Your task to perform on an android device: Add alienware aurora to the cart on newegg, then select checkout. Image 0: 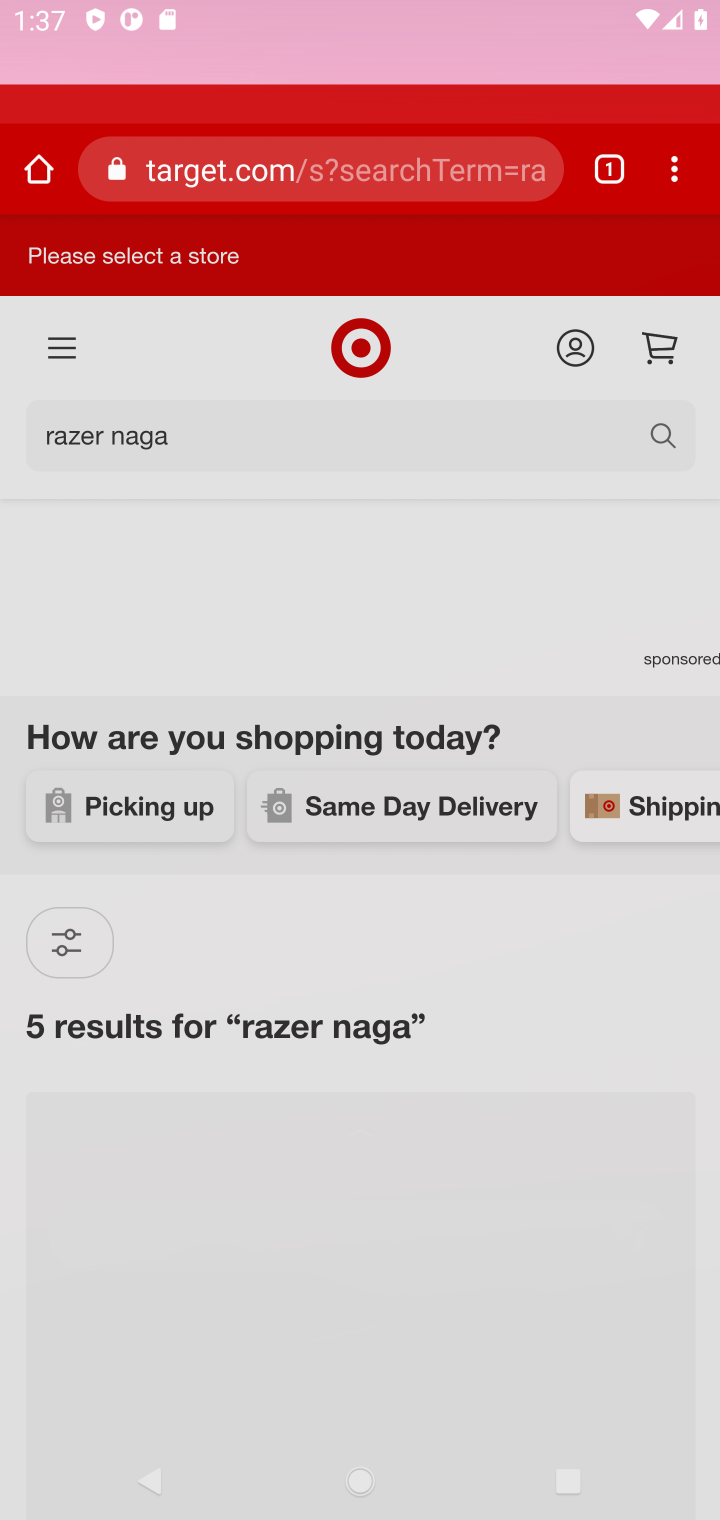
Step 0: click (500, 1149)
Your task to perform on an android device: Add alienware aurora to the cart on newegg, then select checkout. Image 1: 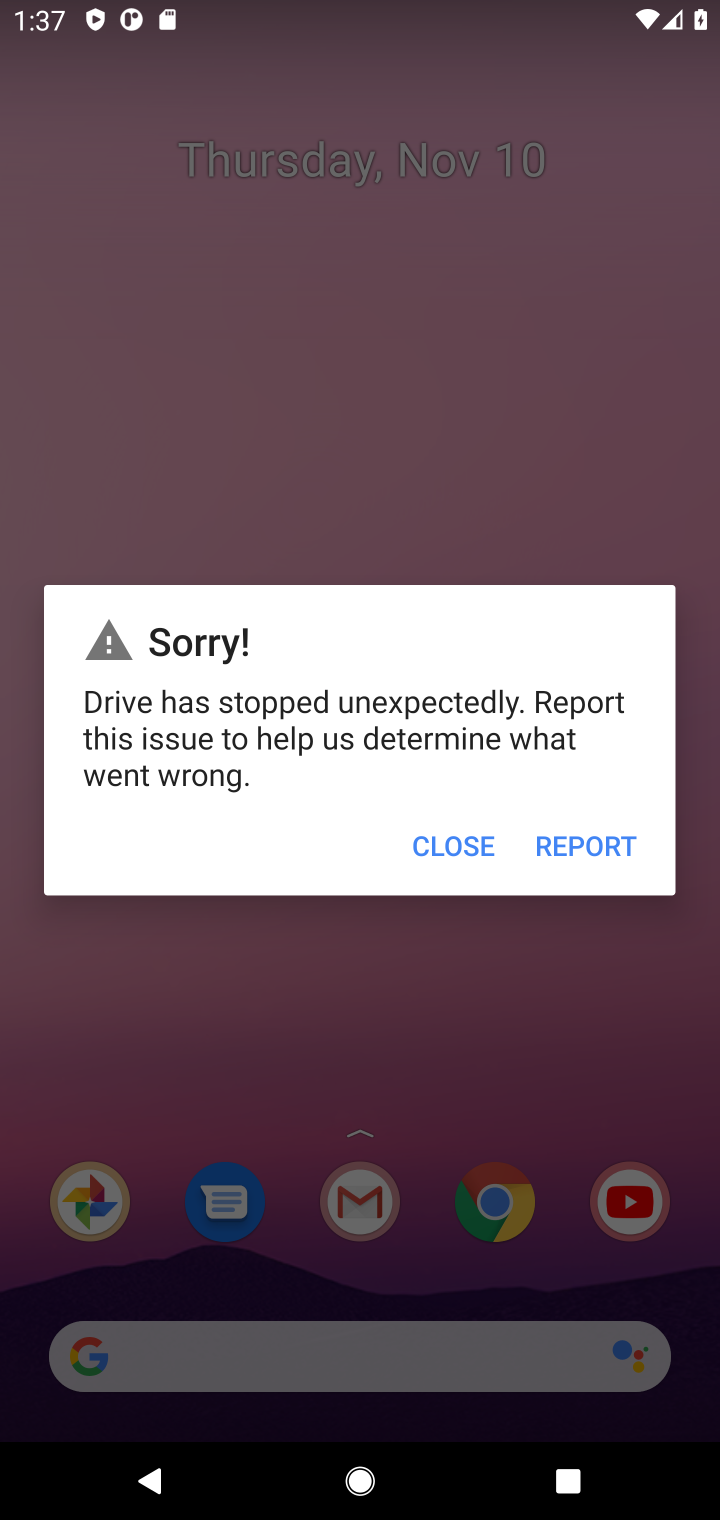
Step 1: press home button
Your task to perform on an android device: Add alienware aurora to the cart on newegg, then select checkout. Image 2: 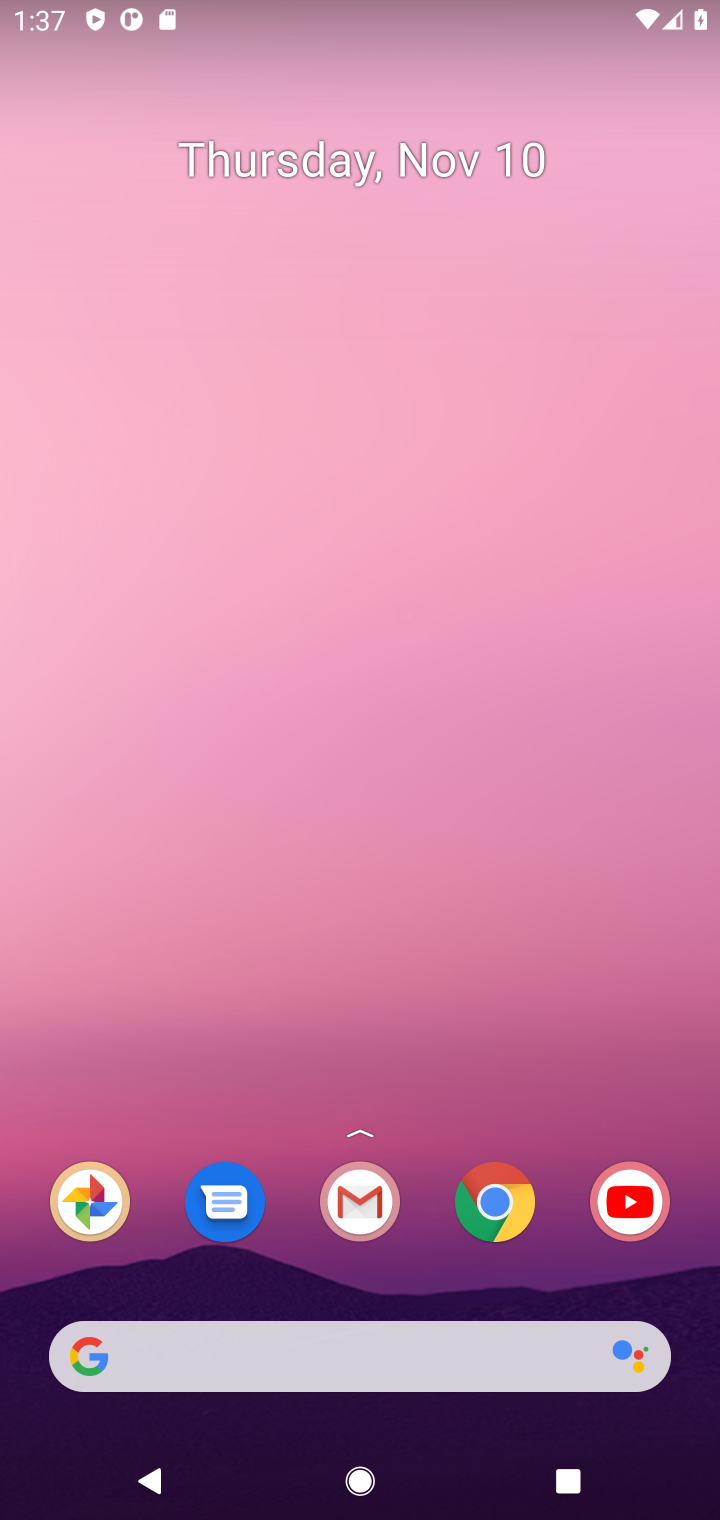
Step 2: click (493, 1211)
Your task to perform on an android device: Add alienware aurora to the cart on newegg, then select checkout. Image 3: 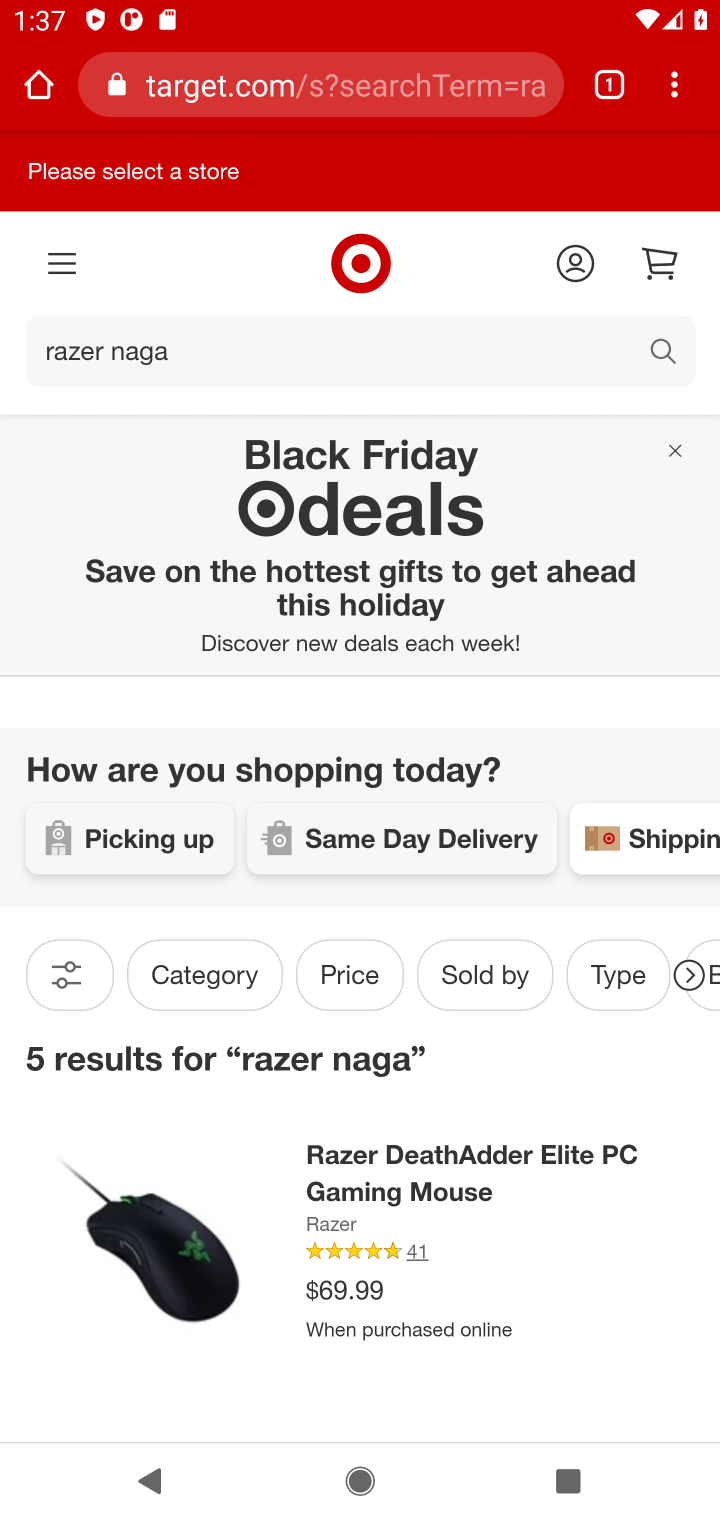
Step 3: click (460, 93)
Your task to perform on an android device: Add alienware aurora to the cart on newegg, then select checkout. Image 4: 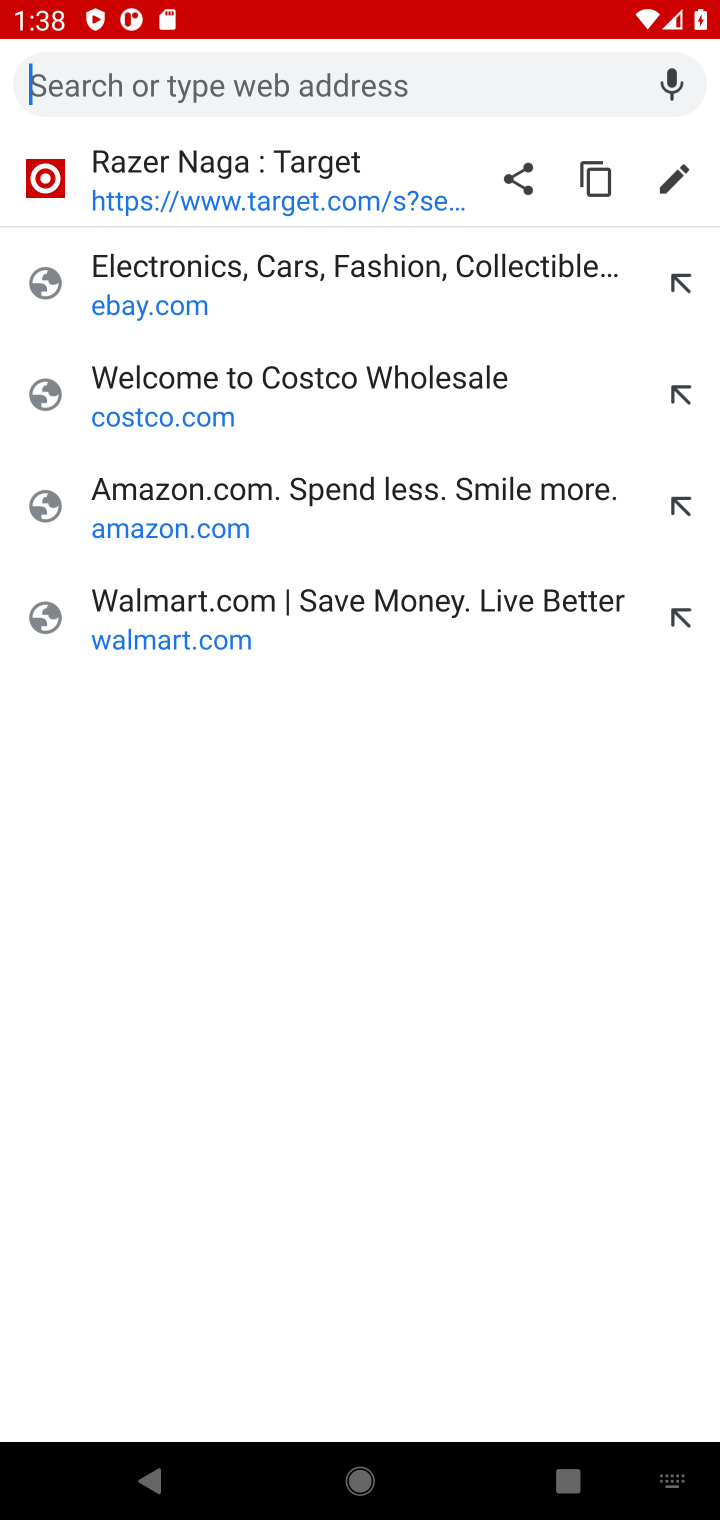
Step 4: type "newegg"
Your task to perform on an android device: Add alienware aurora to the cart on newegg, then select checkout. Image 5: 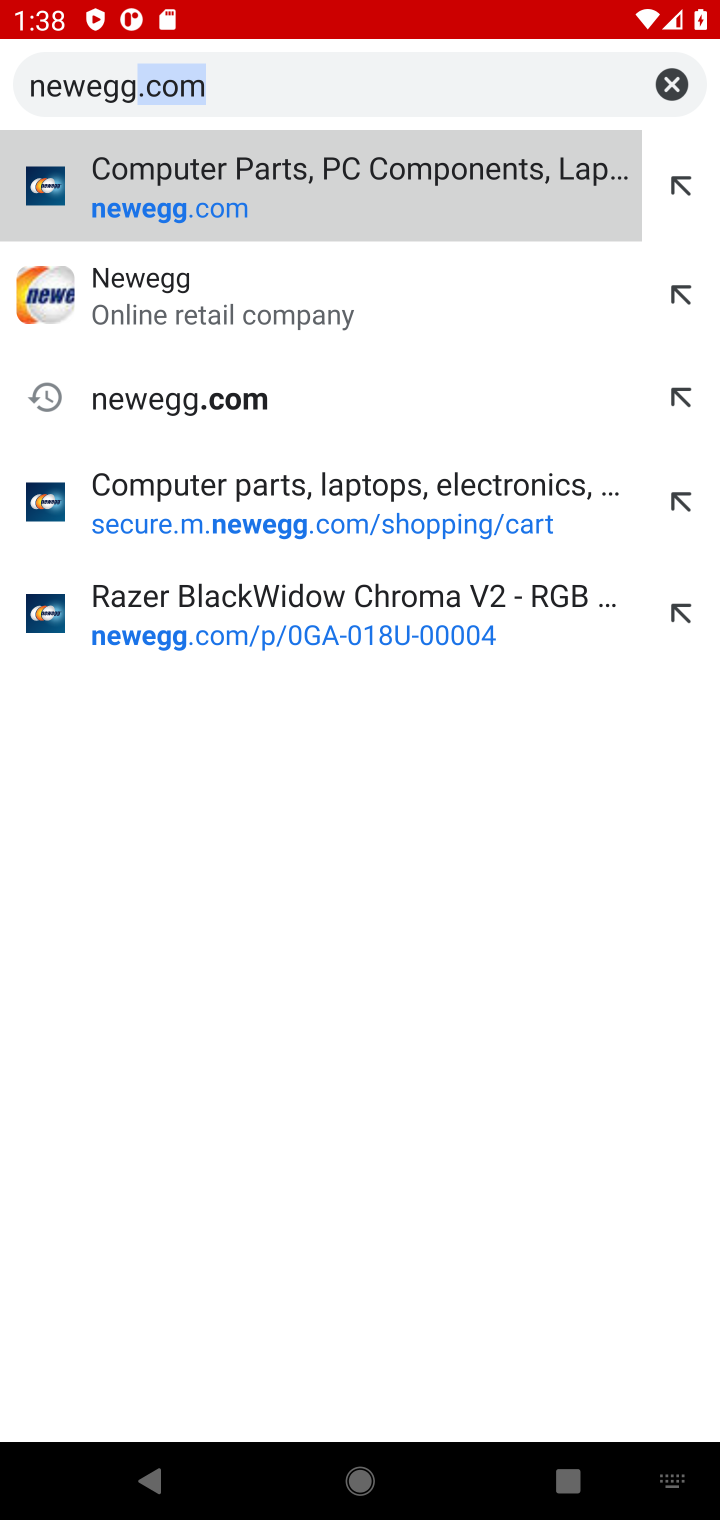
Step 5: click (354, 85)
Your task to perform on an android device: Add alienware aurora to the cart on newegg, then select checkout. Image 6: 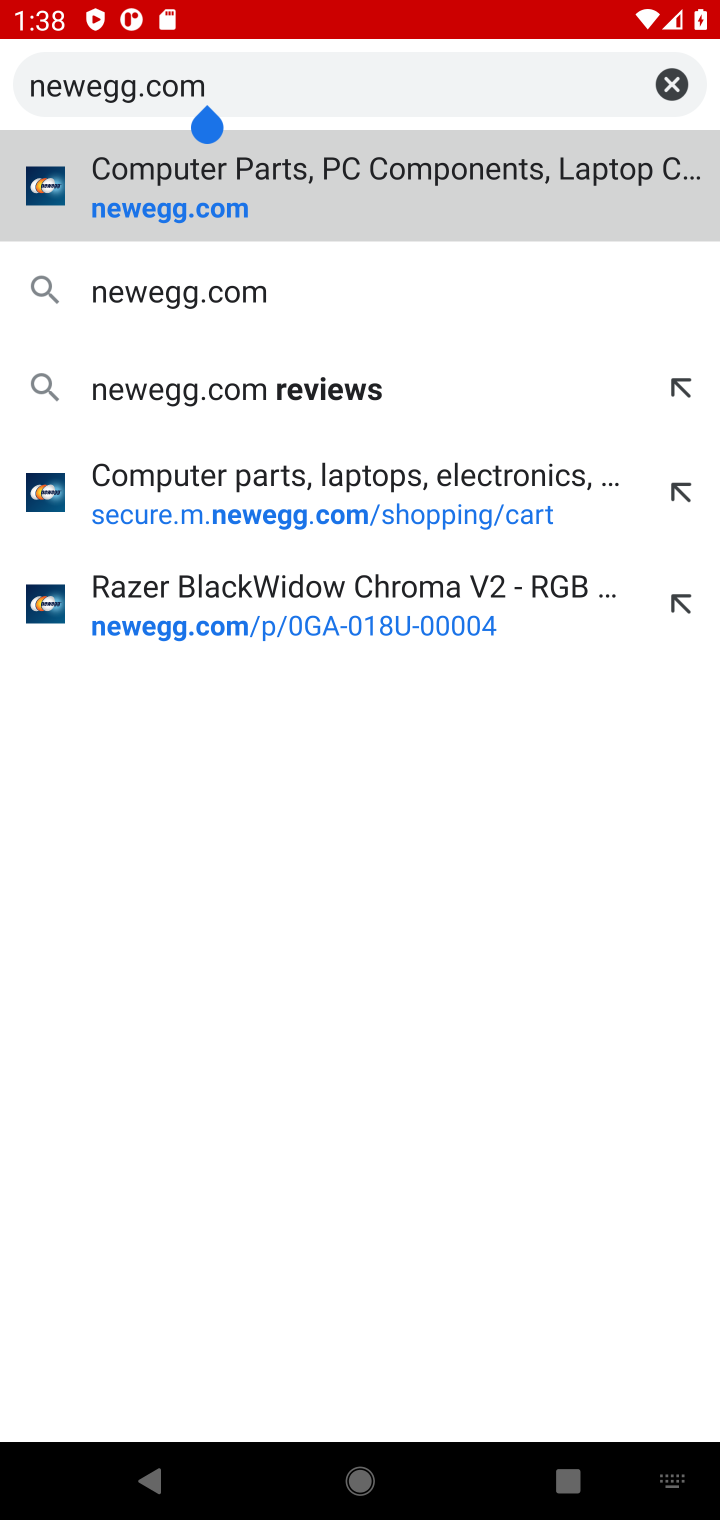
Step 6: click (217, 300)
Your task to perform on an android device: Add alienware aurora to the cart on newegg, then select checkout. Image 7: 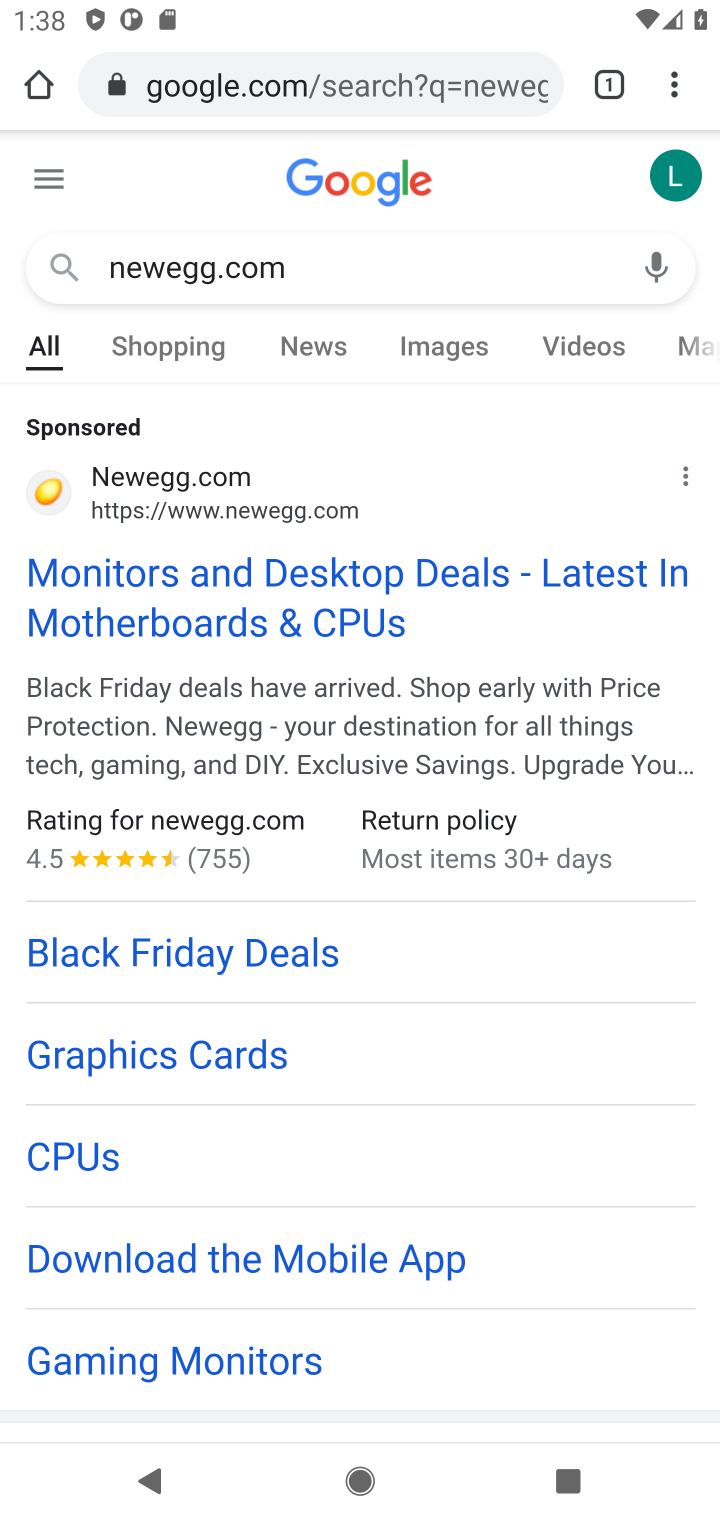
Step 7: click (245, 511)
Your task to perform on an android device: Add alienware aurora to the cart on newegg, then select checkout. Image 8: 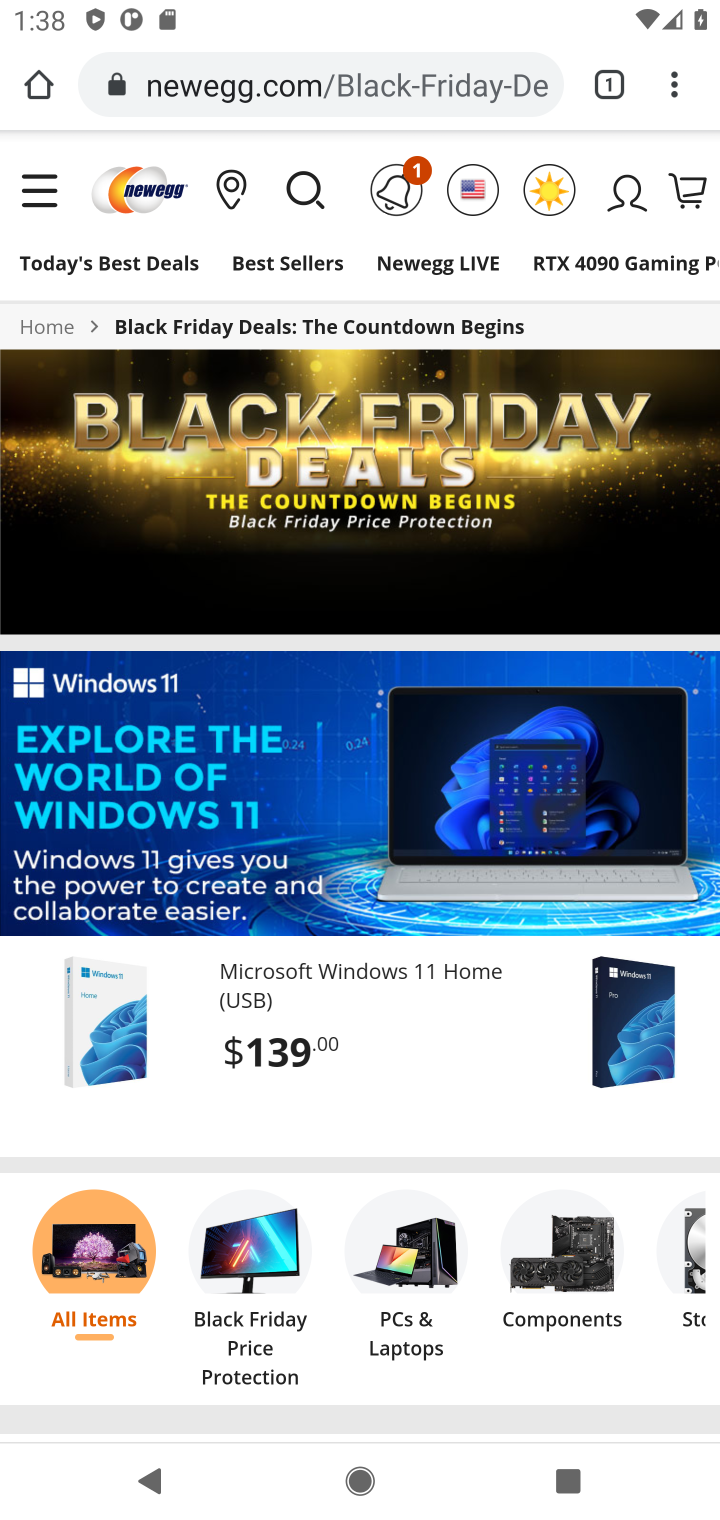
Step 8: click (306, 184)
Your task to perform on an android device: Add alienware aurora to the cart on newegg, then select checkout. Image 9: 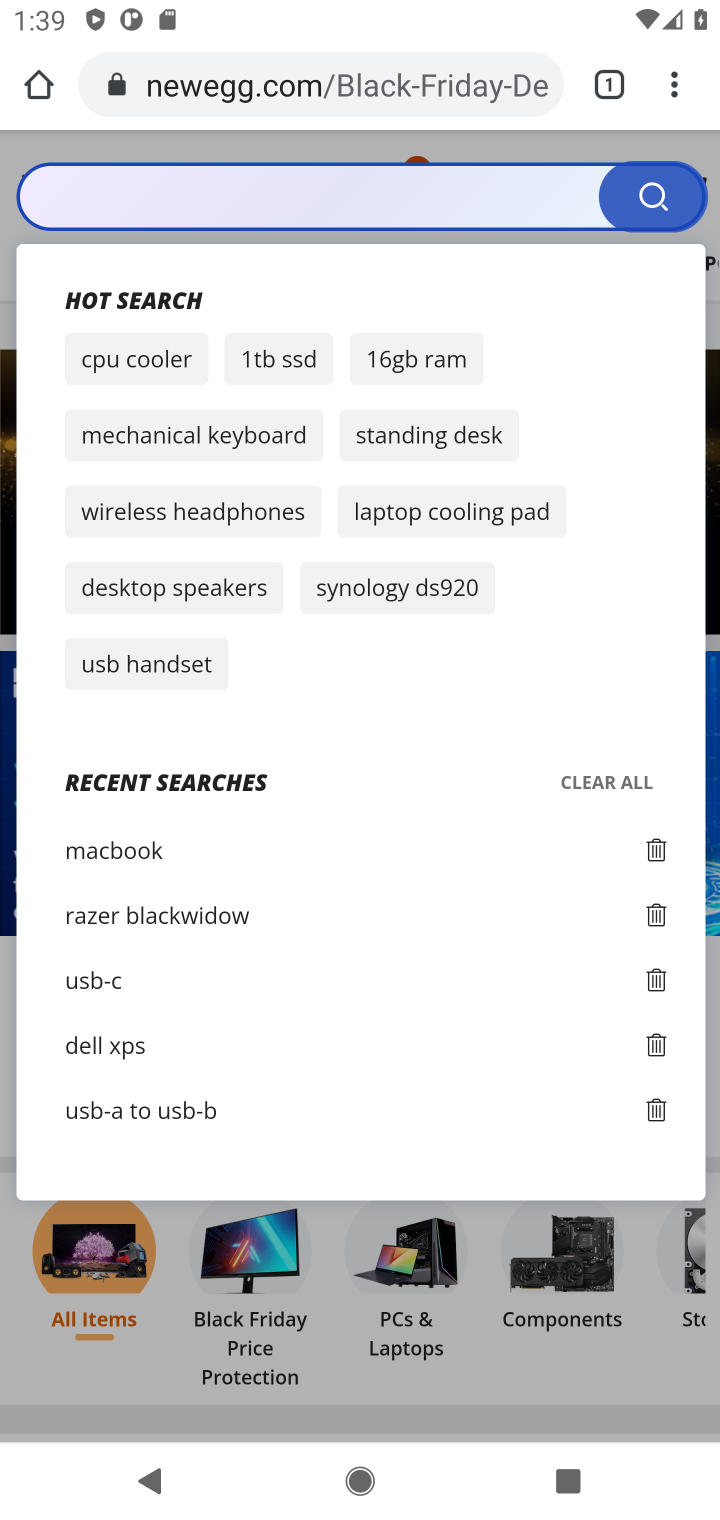
Step 9: click (368, 183)
Your task to perform on an android device: Add alienware aurora to the cart on newegg, then select checkout. Image 10: 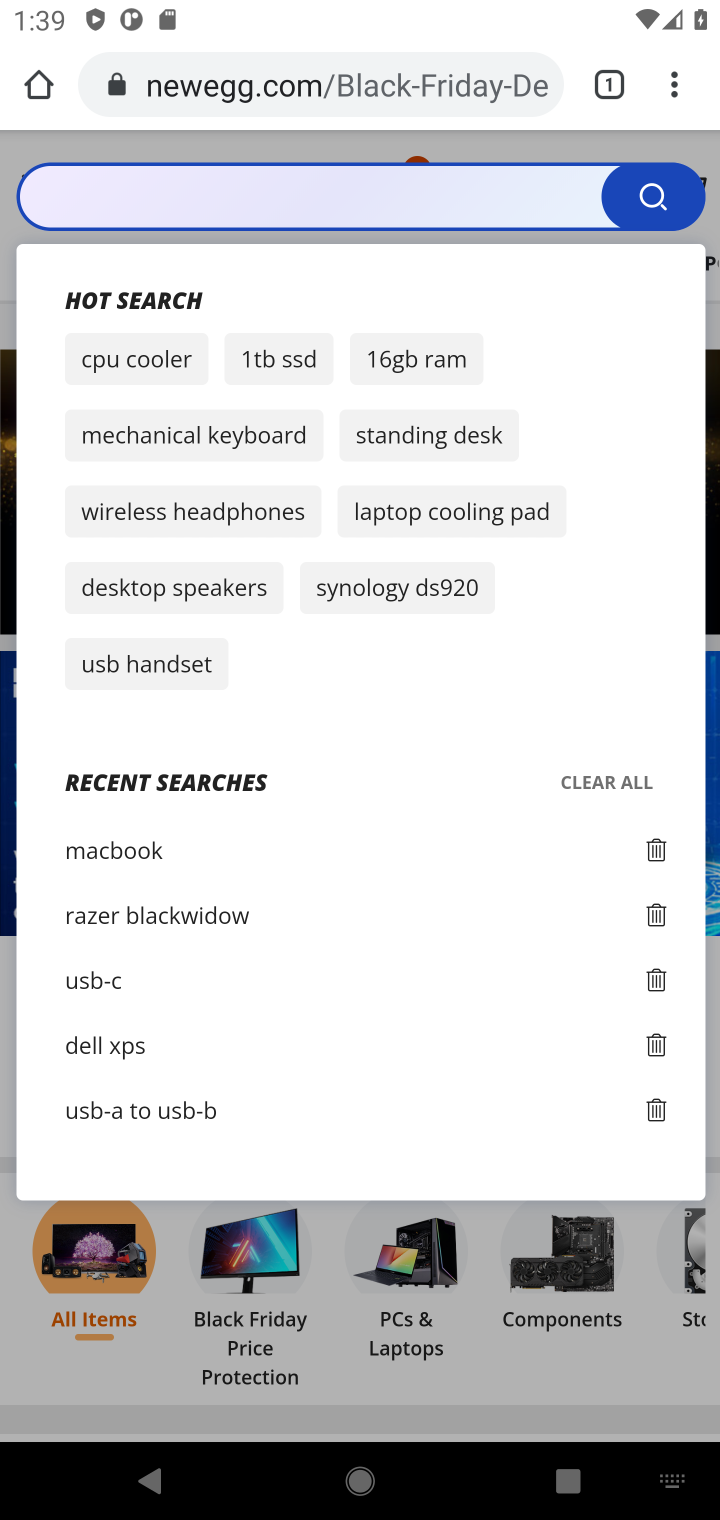
Step 10: type "alienware aurora"
Your task to perform on an android device: Add alienware aurora to the cart on newegg, then select checkout. Image 11: 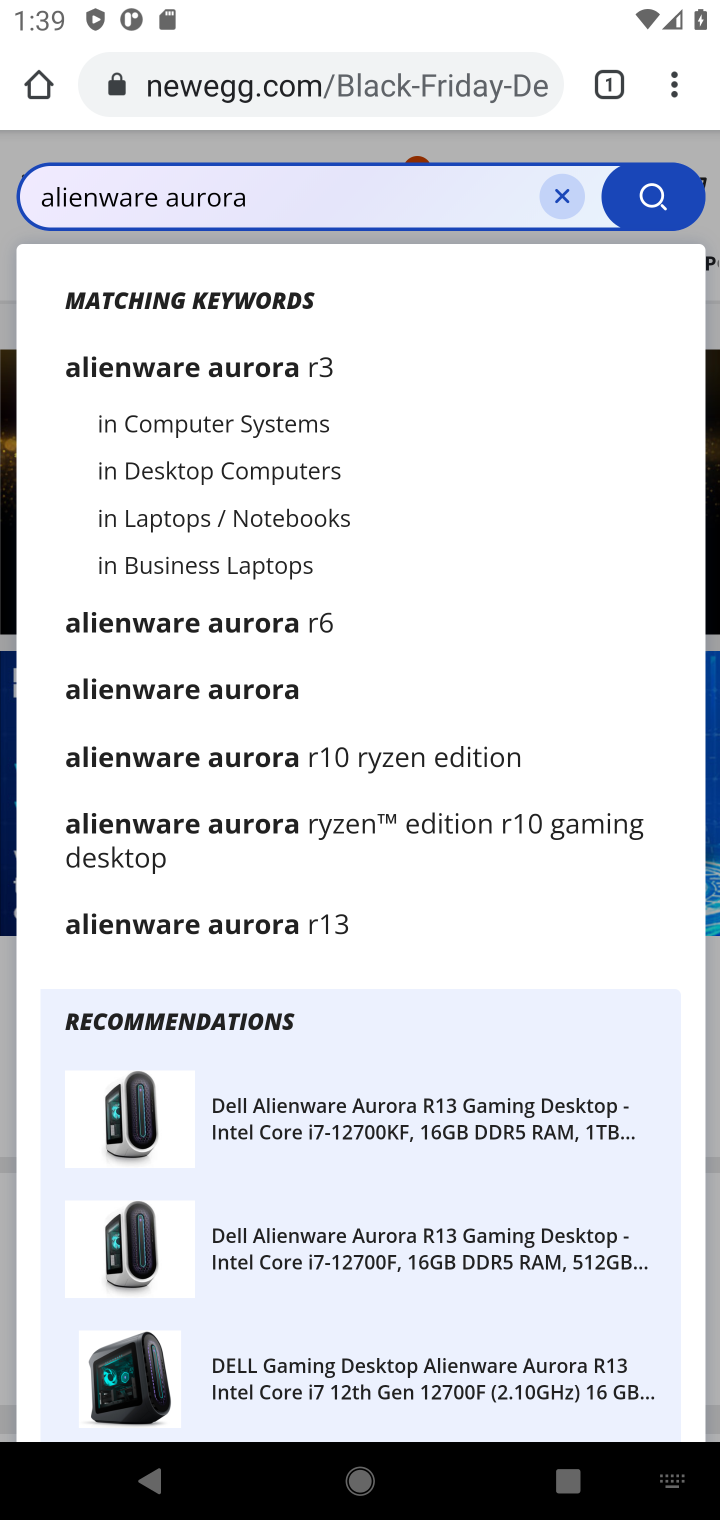
Step 11: click (266, 684)
Your task to perform on an android device: Add alienware aurora to the cart on newegg, then select checkout. Image 12: 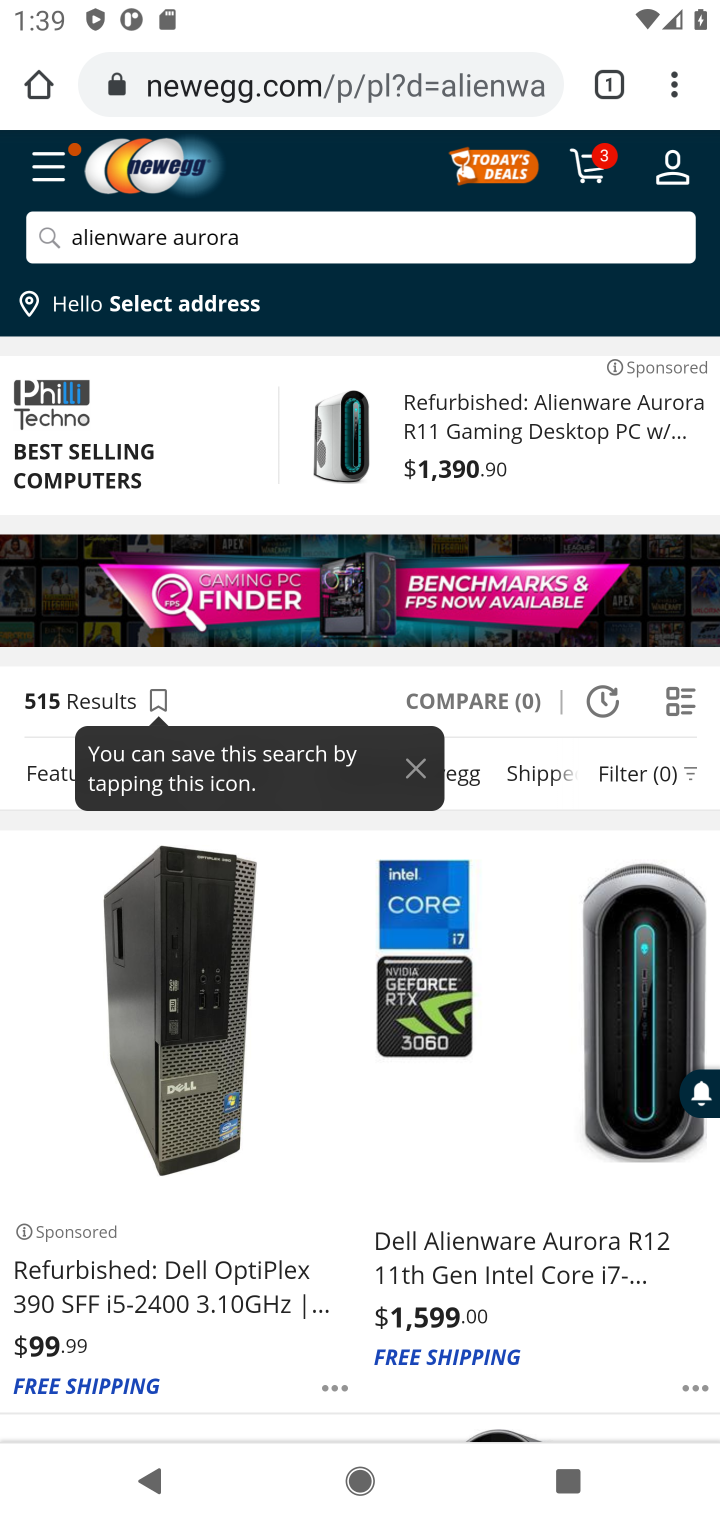
Step 12: click (493, 1056)
Your task to perform on an android device: Add alienware aurora to the cart on newegg, then select checkout. Image 13: 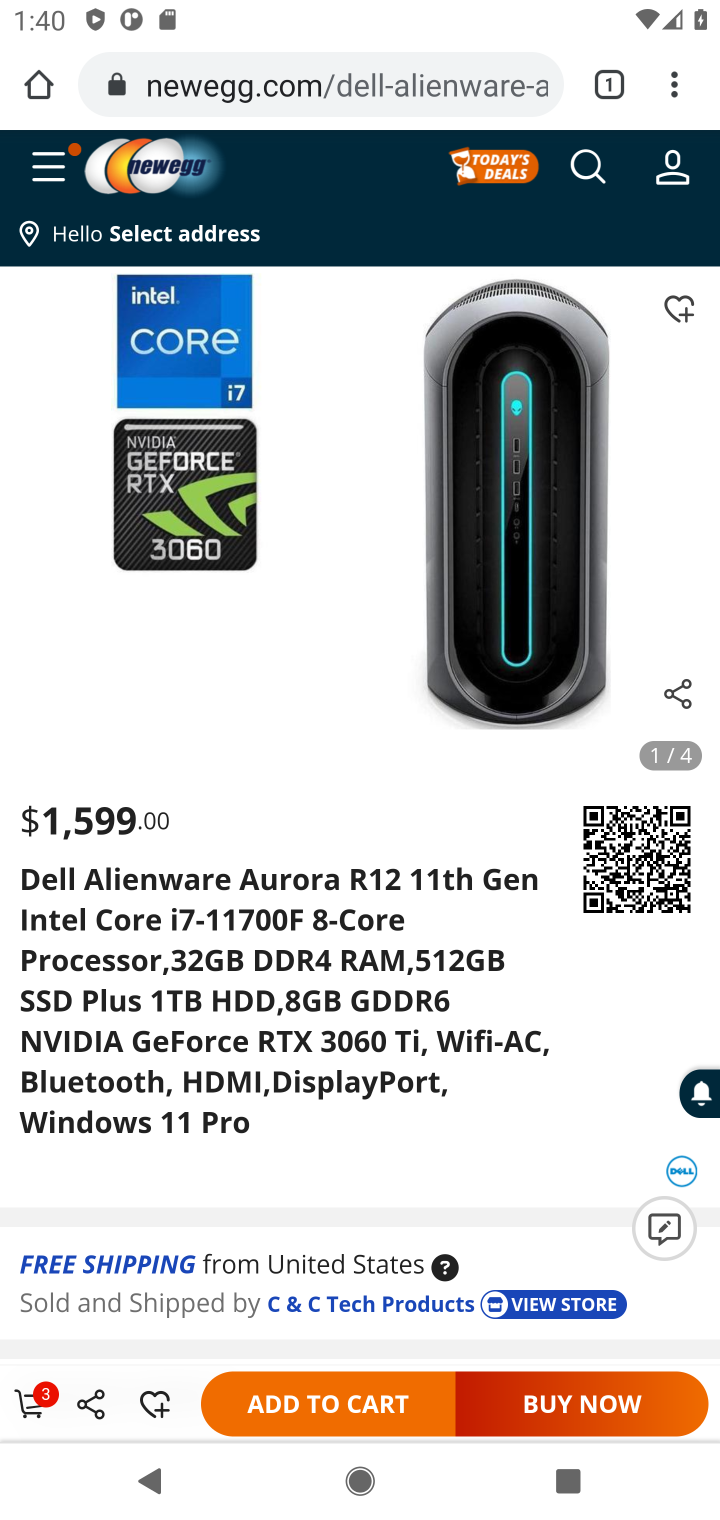
Step 13: click (349, 1400)
Your task to perform on an android device: Add alienware aurora to the cart on newegg, then select checkout. Image 14: 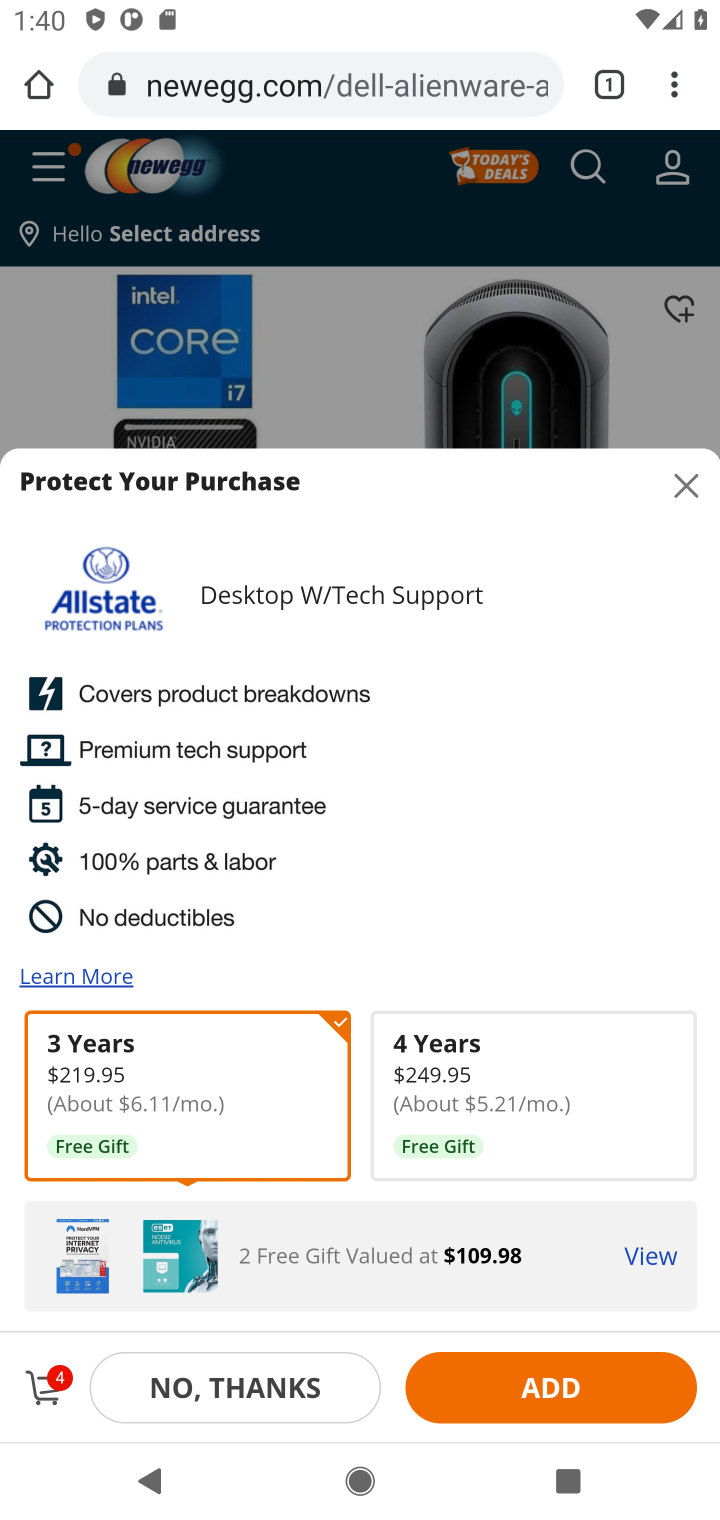
Step 14: click (686, 488)
Your task to perform on an android device: Add alienware aurora to the cart on newegg, then select checkout. Image 15: 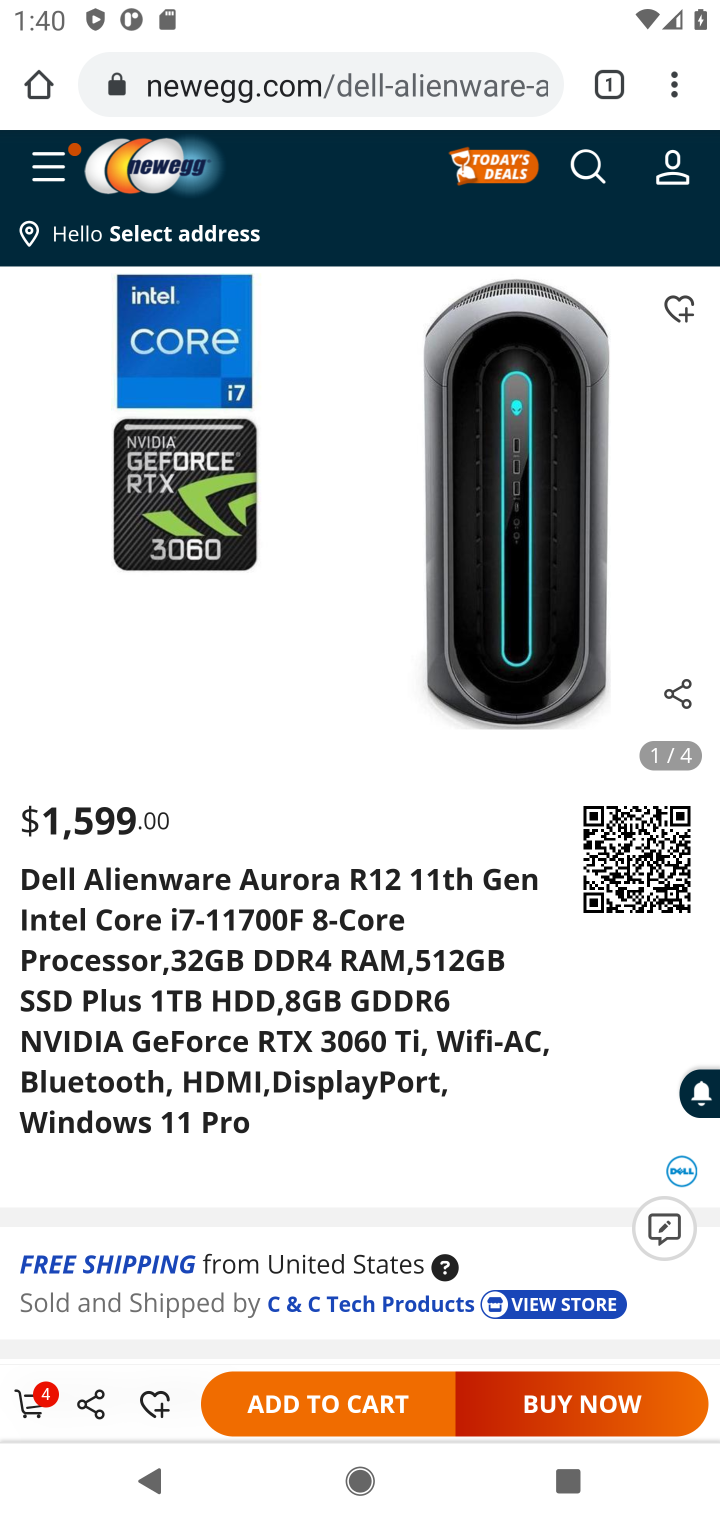
Step 15: click (32, 1408)
Your task to perform on an android device: Add alienware aurora to the cart on newegg, then select checkout. Image 16: 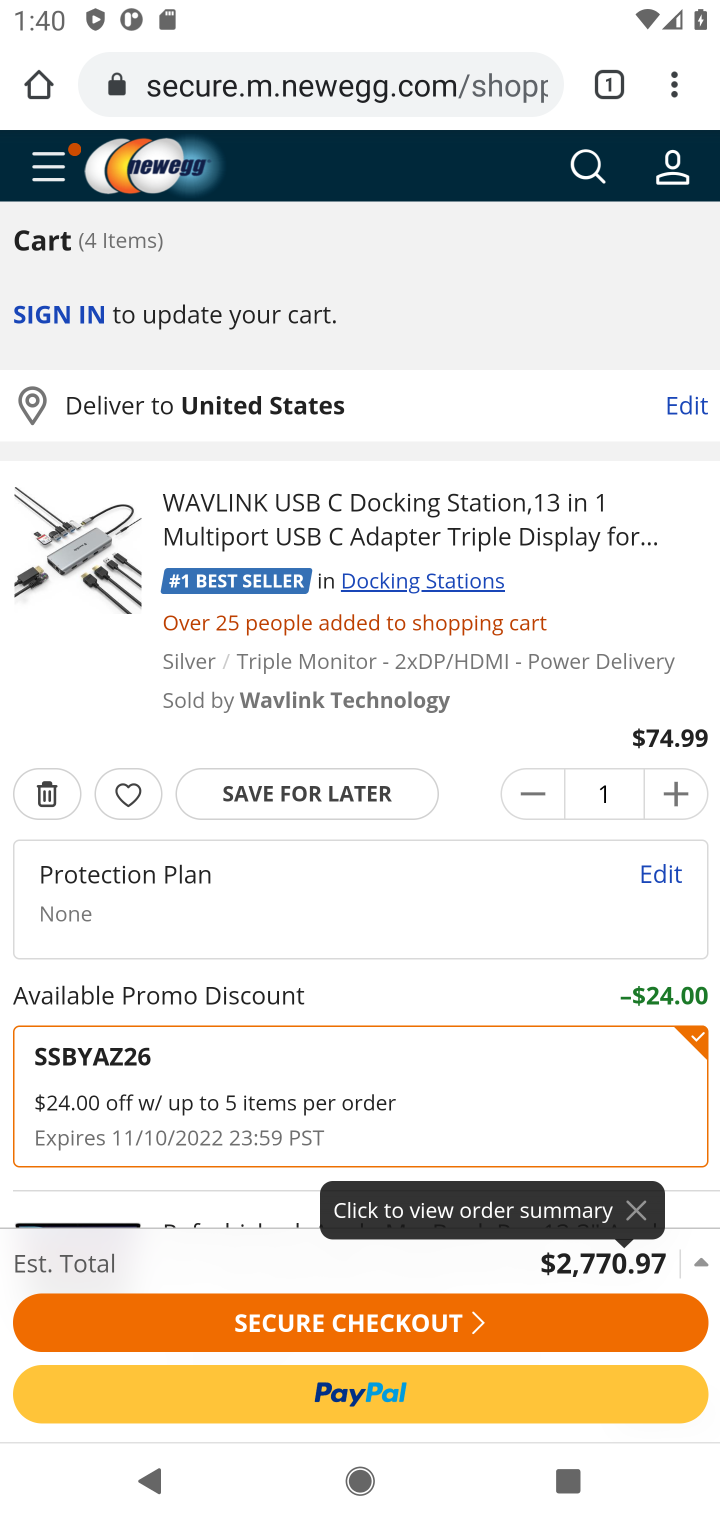
Step 16: click (358, 1323)
Your task to perform on an android device: Add alienware aurora to the cart on newegg, then select checkout. Image 17: 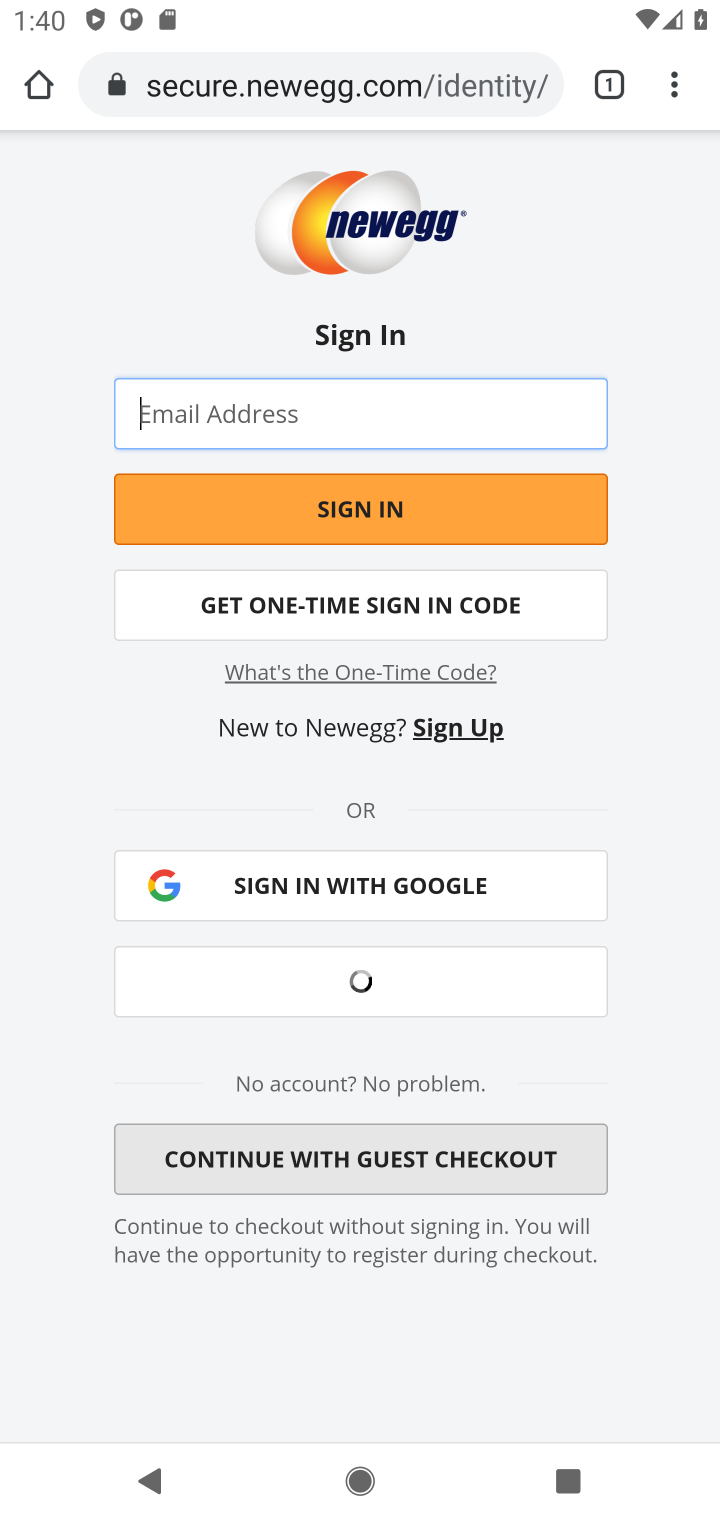
Step 17: task complete